Your task to perform on an android device: Open Maps and search for coffee Image 0: 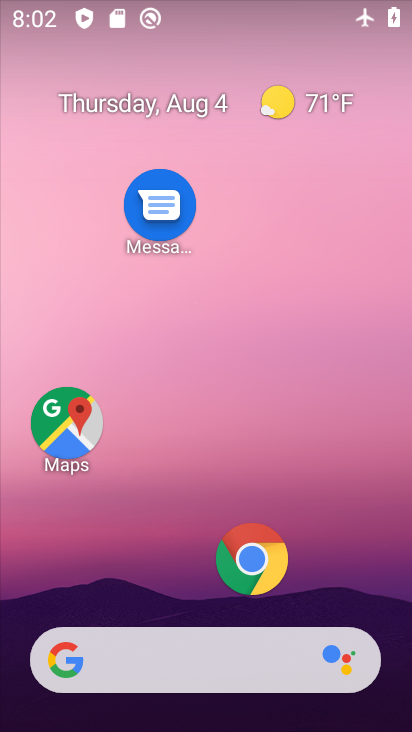
Step 0: drag from (263, 619) to (236, 8)
Your task to perform on an android device: Open Maps and search for coffee Image 1: 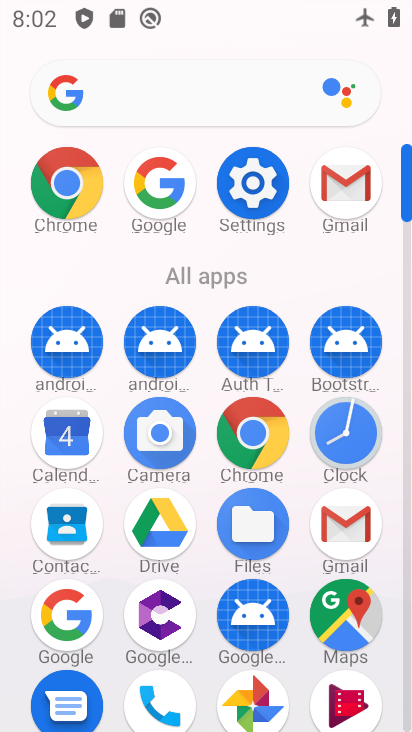
Step 1: click (360, 612)
Your task to perform on an android device: Open Maps and search for coffee Image 2: 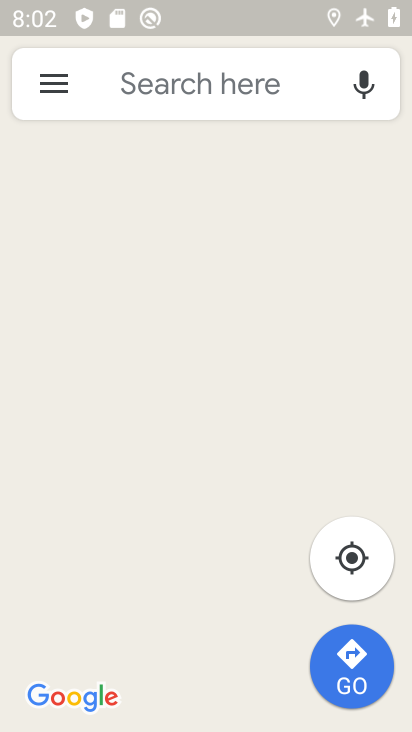
Step 2: click (173, 97)
Your task to perform on an android device: Open Maps and search for coffee Image 3: 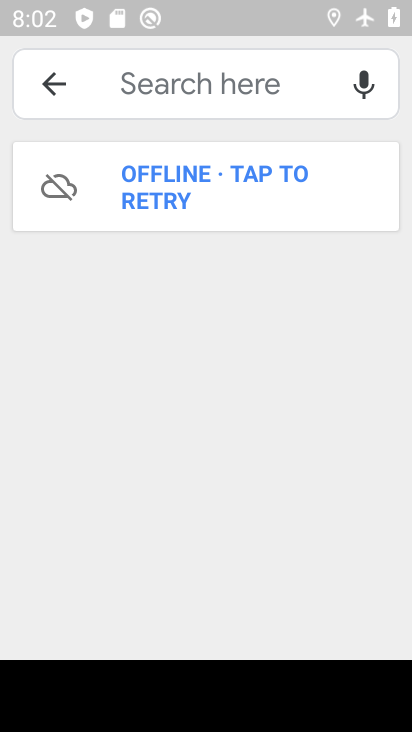
Step 3: click (161, 168)
Your task to perform on an android device: Open Maps and search for coffee Image 4: 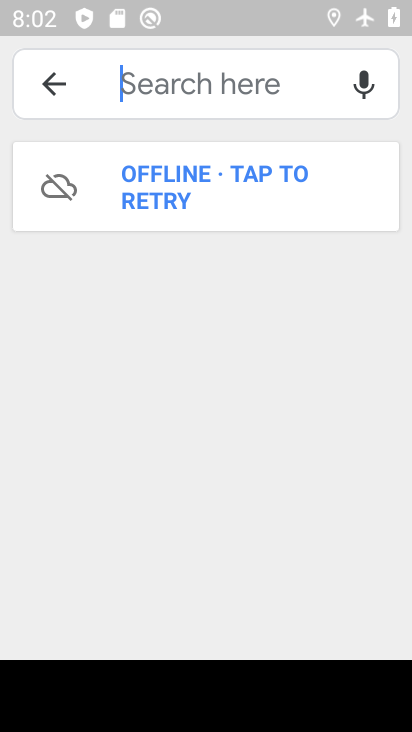
Step 4: task complete